Your task to perform on an android device: snooze an email in the gmail app Image 0: 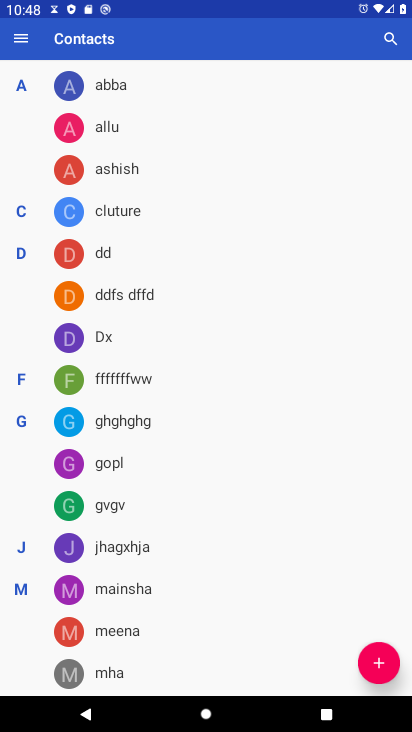
Step 0: press home button
Your task to perform on an android device: snooze an email in the gmail app Image 1: 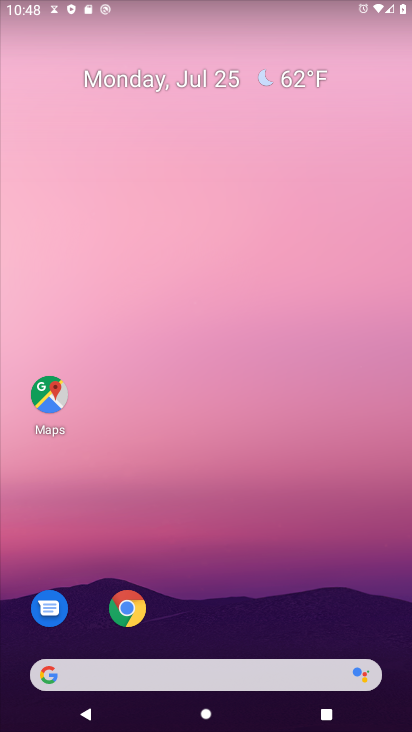
Step 1: drag from (211, 666) to (278, 108)
Your task to perform on an android device: snooze an email in the gmail app Image 2: 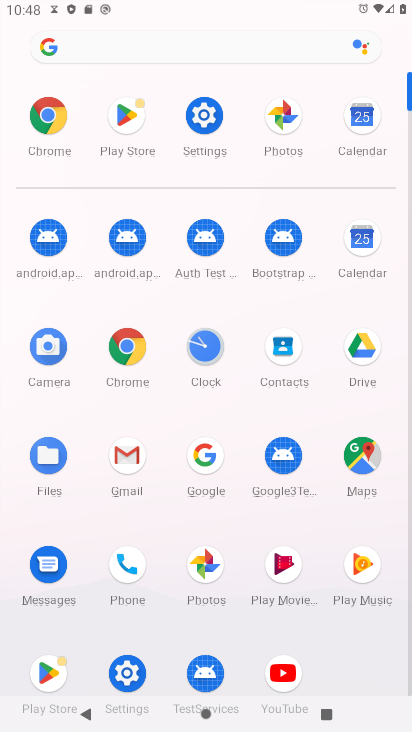
Step 2: click (127, 454)
Your task to perform on an android device: snooze an email in the gmail app Image 3: 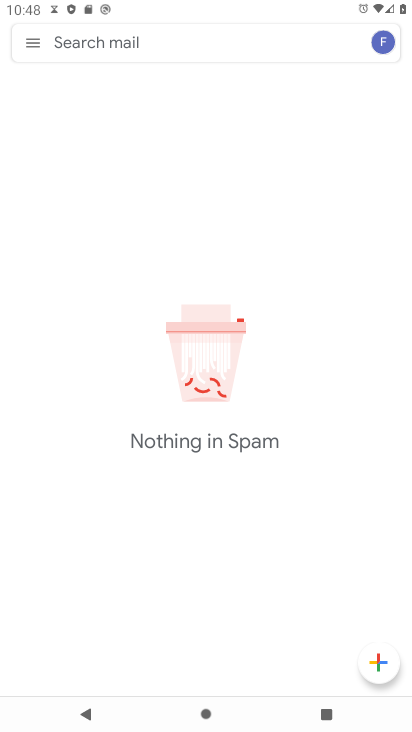
Step 3: click (31, 49)
Your task to perform on an android device: snooze an email in the gmail app Image 4: 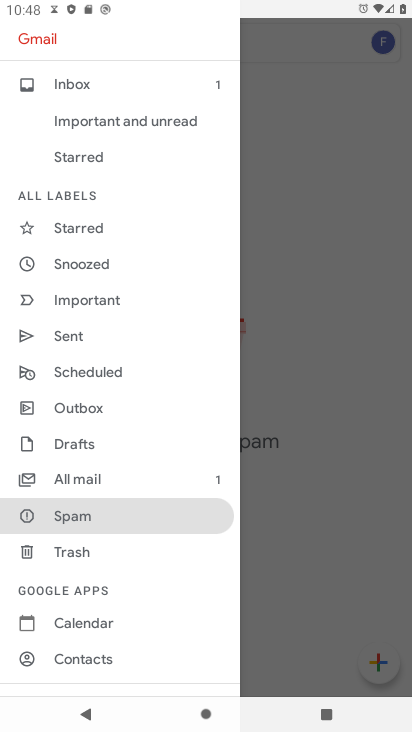
Step 4: click (87, 90)
Your task to perform on an android device: snooze an email in the gmail app Image 5: 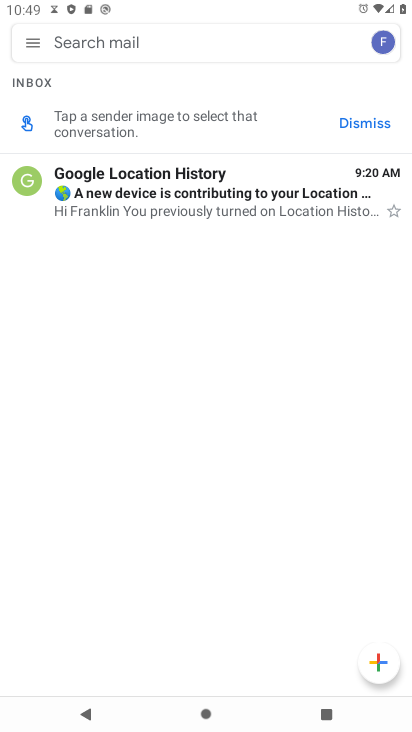
Step 5: click (275, 202)
Your task to perform on an android device: snooze an email in the gmail app Image 6: 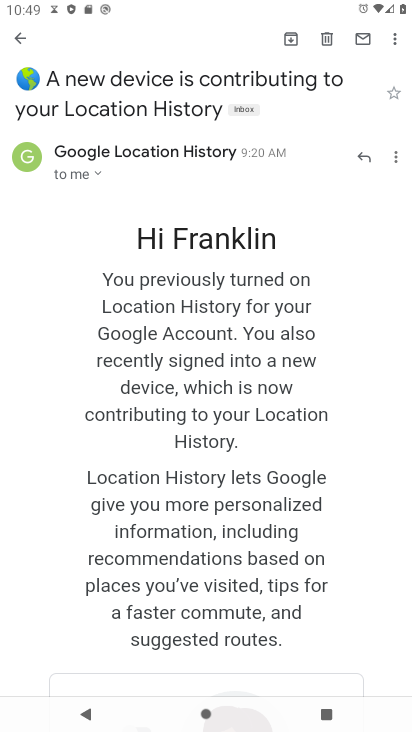
Step 6: click (391, 40)
Your task to perform on an android device: snooze an email in the gmail app Image 7: 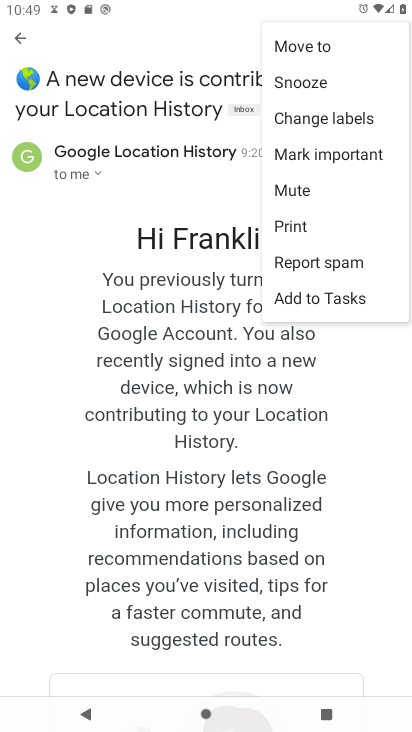
Step 7: click (325, 77)
Your task to perform on an android device: snooze an email in the gmail app Image 8: 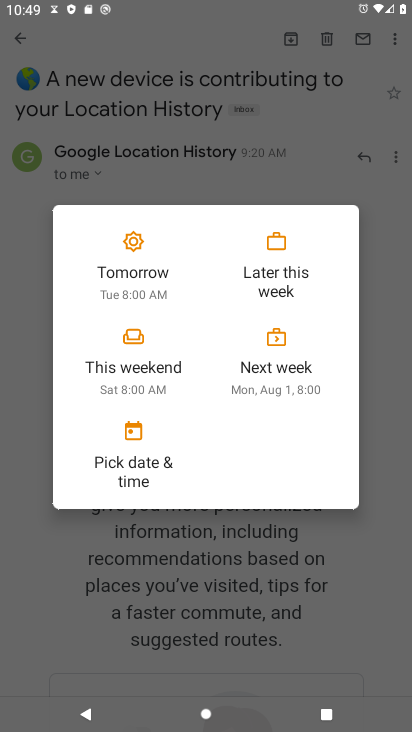
Step 8: click (158, 363)
Your task to perform on an android device: snooze an email in the gmail app Image 9: 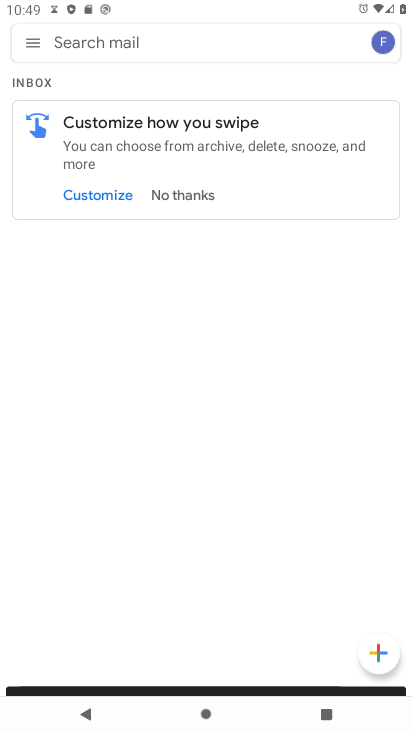
Step 9: task complete